Your task to perform on an android device: check data usage Image 0: 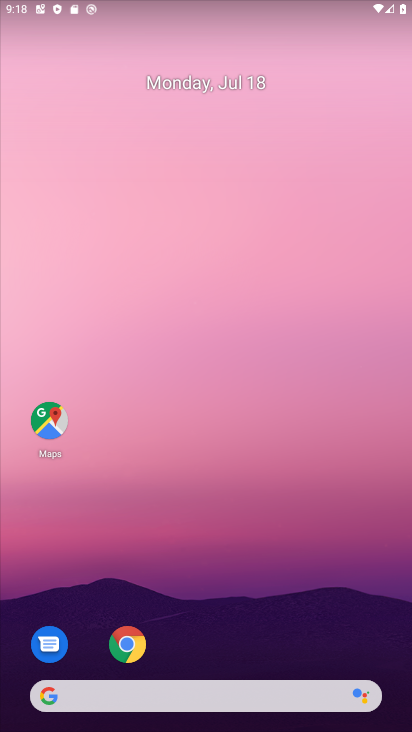
Step 0: drag from (209, 650) to (197, 6)
Your task to perform on an android device: check data usage Image 1: 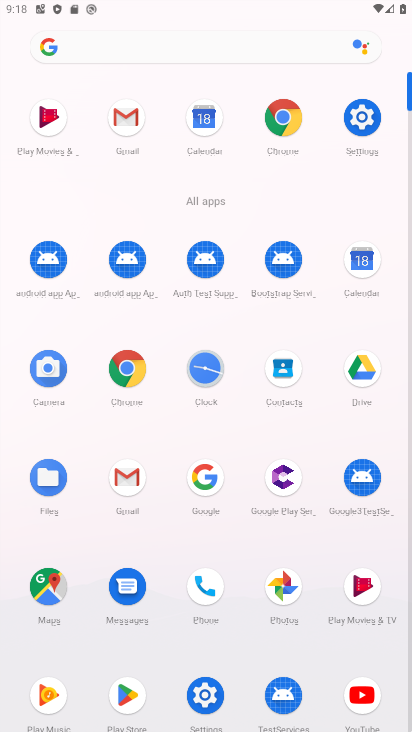
Step 1: click (368, 146)
Your task to perform on an android device: check data usage Image 2: 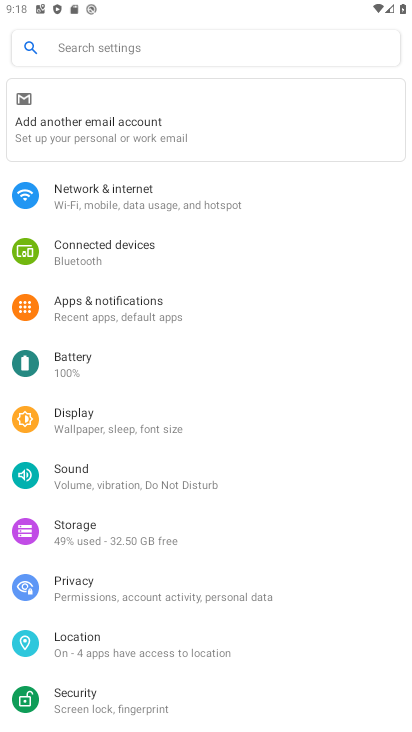
Step 2: click (115, 201)
Your task to perform on an android device: check data usage Image 3: 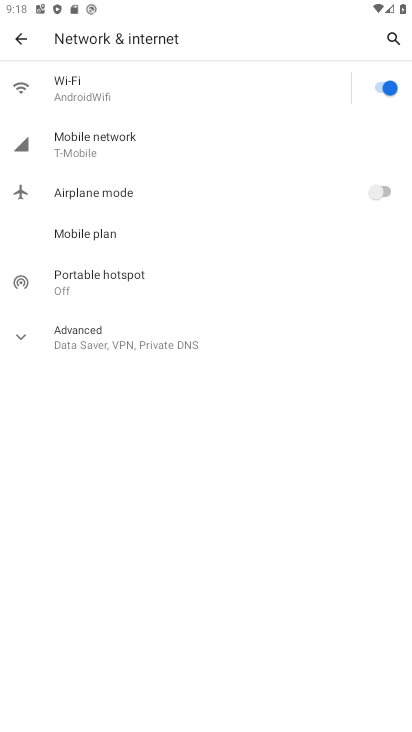
Step 3: click (50, 132)
Your task to perform on an android device: check data usage Image 4: 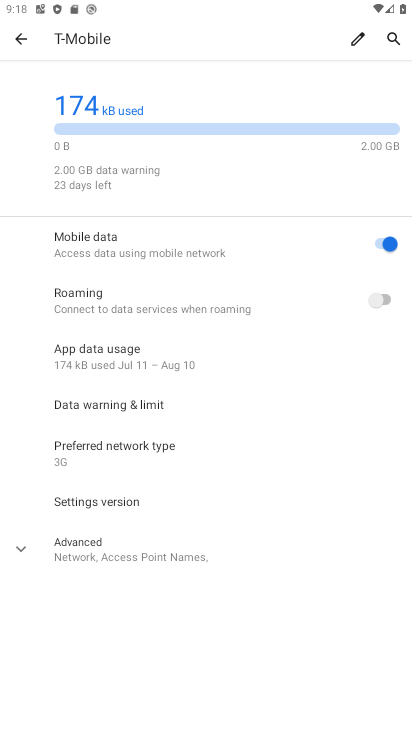
Step 4: click (74, 553)
Your task to perform on an android device: check data usage Image 5: 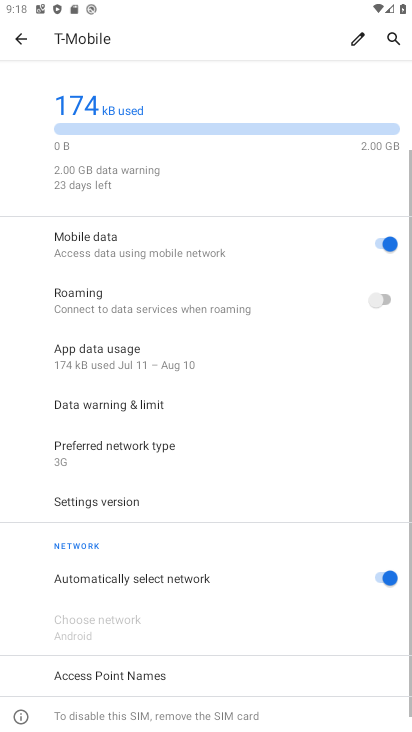
Step 5: task complete